Your task to perform on an android device: Turn off the flashlight Image 0: 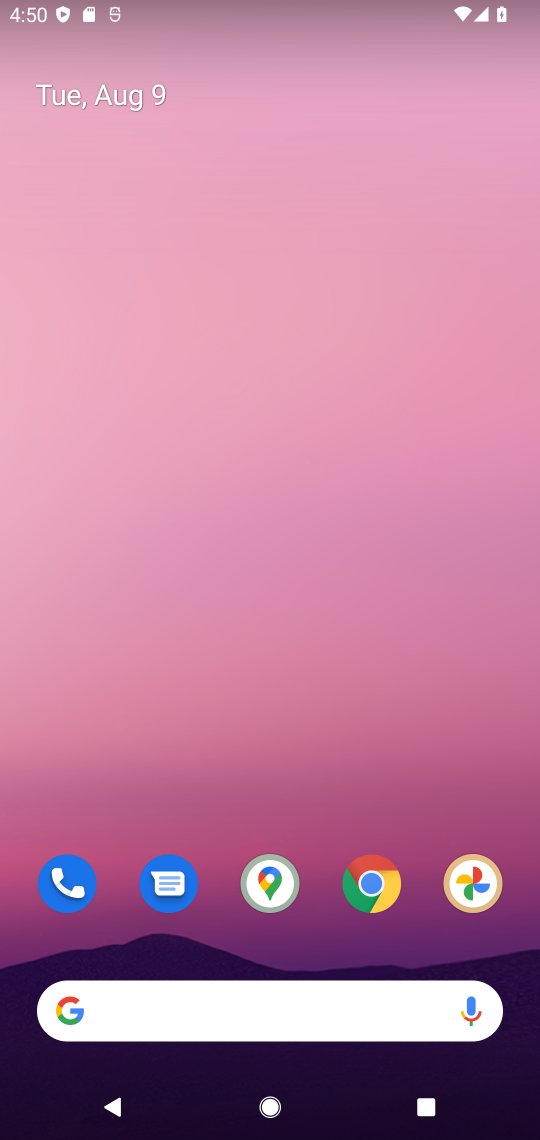
Step 0: drag from (265, 796) to (280, 114)
Your task to perform on an android device: Turn off the flashlight Image 1: 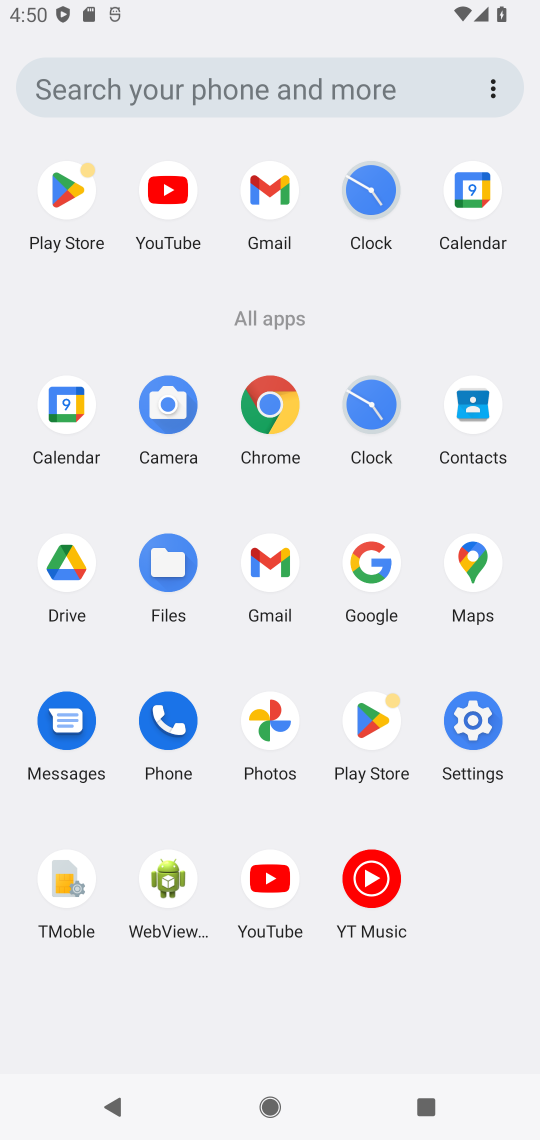
Step 1: click (461, 746)
Your task to perform on an android device: Turn off the flashlight Image 2: 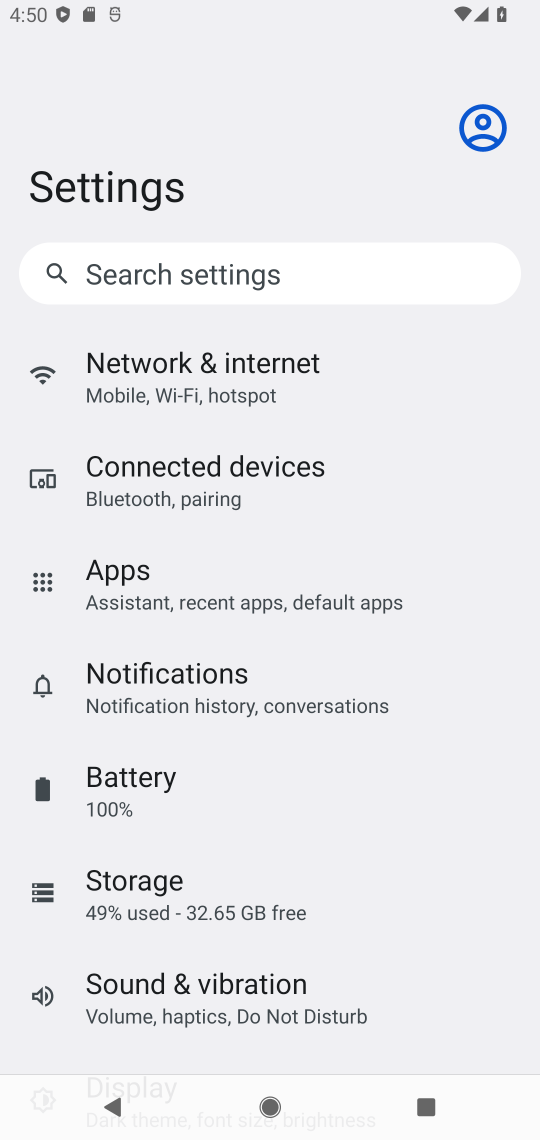
Step 2: task complete